Your task to perform on an android device: turn notification dots on Image 0: 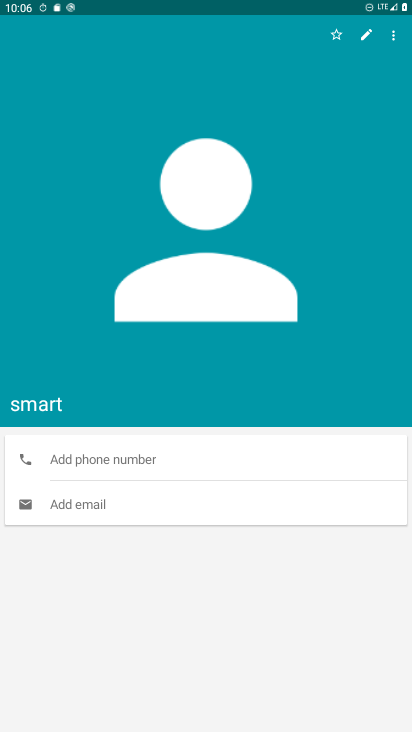
Step 0: press home button
Your task to perform on an android device: turn notification dots on Image 1: 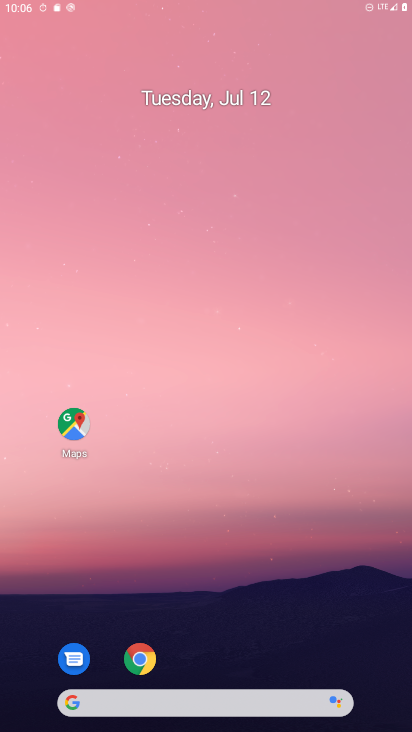
Step 1: drag from (393, 660) to (128, 18)
Your task to perform on an android device: turn notification dots on Image 2: 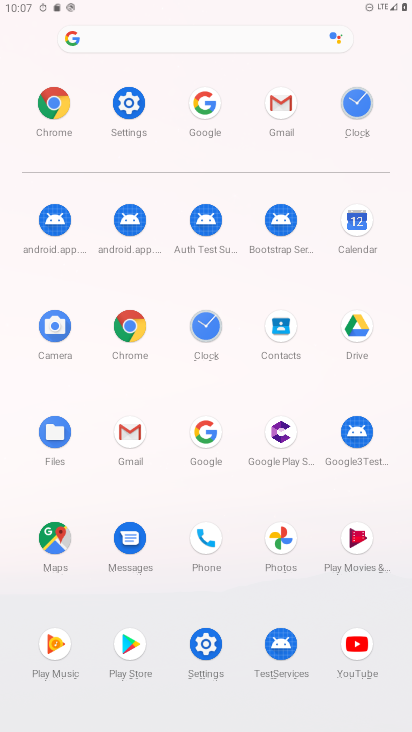
Step 2: click (191, 631)
Your task to perform on an android device: turn notification dots on Image 3: 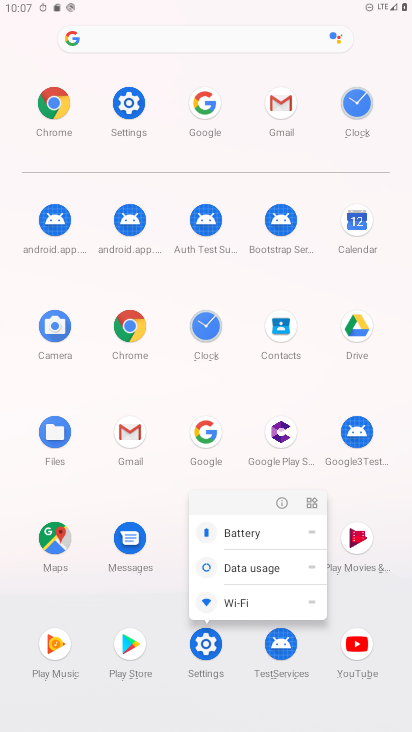
Step 3: click (215, 647)
Your task to perform on an android device: turn notification dots on Image 4: 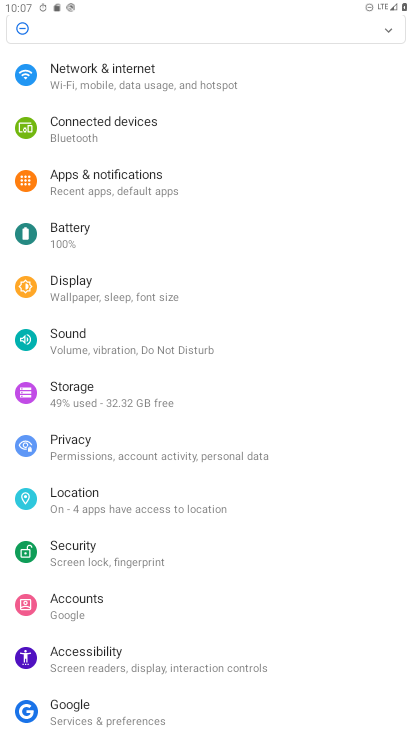
Step 4: click (155, 183)
Your task to perform on an android device: turn notification dots on Image 5: 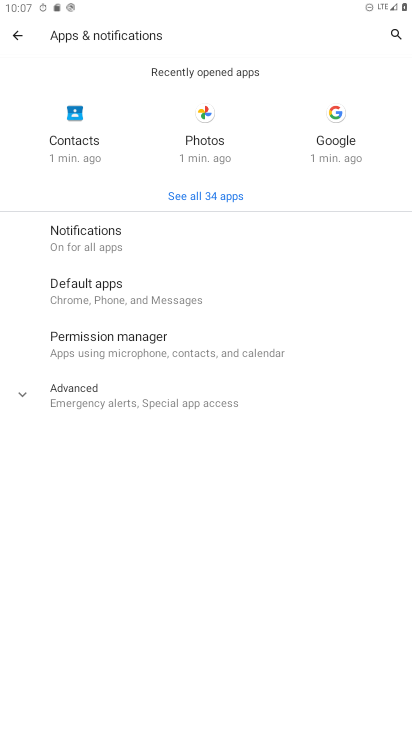
Step 5: click (67, 400)
Your task to perform on an android device: turn notification dots on Image 6: 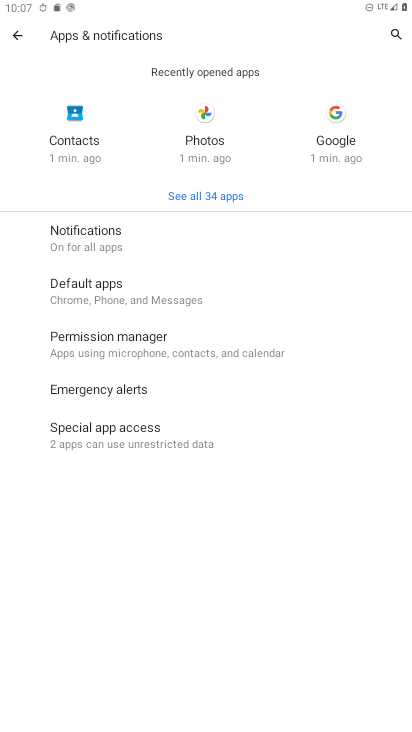
Step 6: click (116, 249)
Your task to perform on an android device: turn notification dots on Image 7: 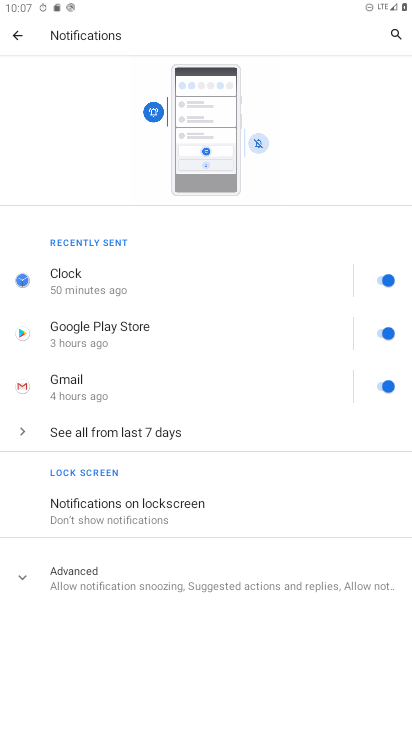
Step 7: click (146, 578)
Your task to perform on an android device: turn notification dots on Image 8: 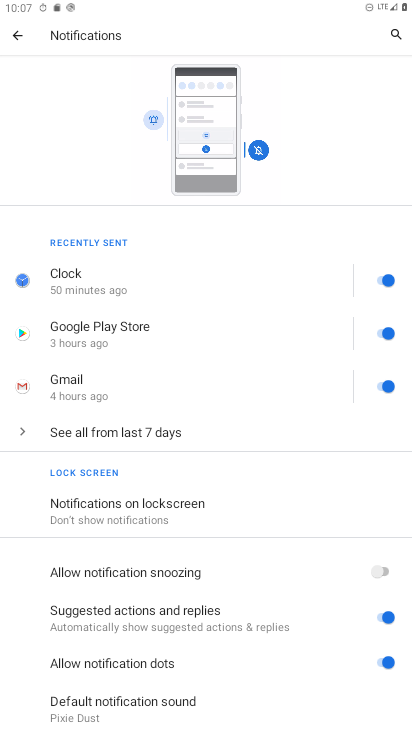
Step 8: task complete